Your task to perform on an android device: Open Chrome and go to settings Image 0: 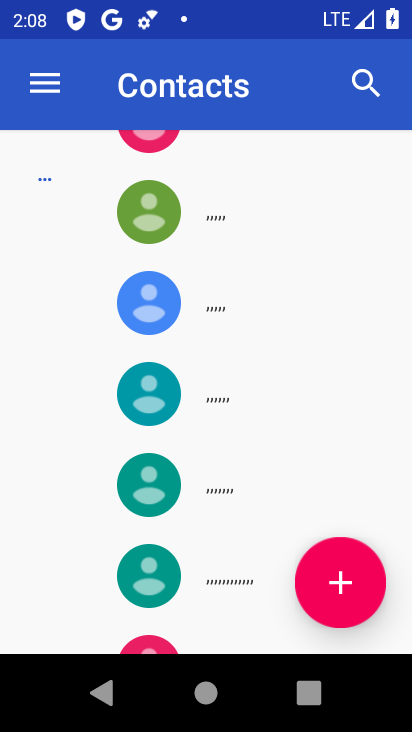
Step 0: press home button
Your task to perform on an android device: Open Chrome and go to settings Image 1: 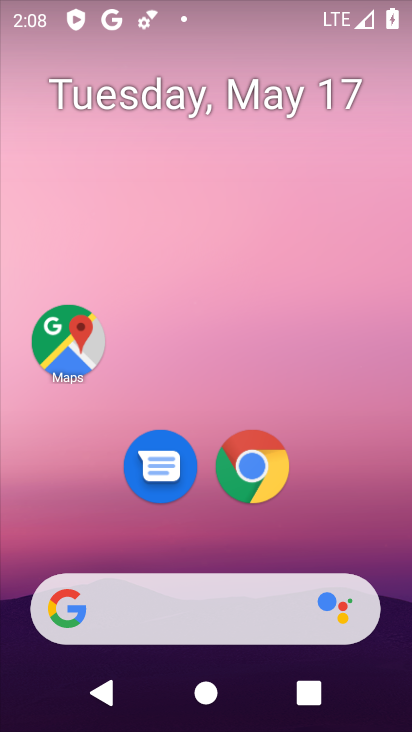
Step 1: click (265, 466)
Your task to perform on an android device: Open Chrome and go to settings Image 2: 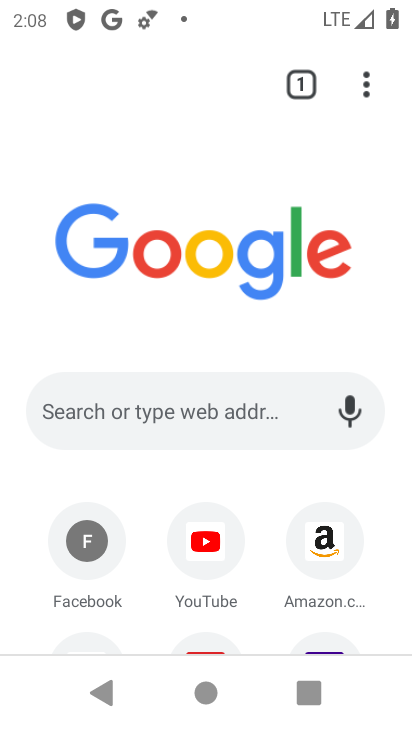
Step 2: task complete